Your task to perform on an android device: uninstall "Adobe Acrobat Reader" Image 0: 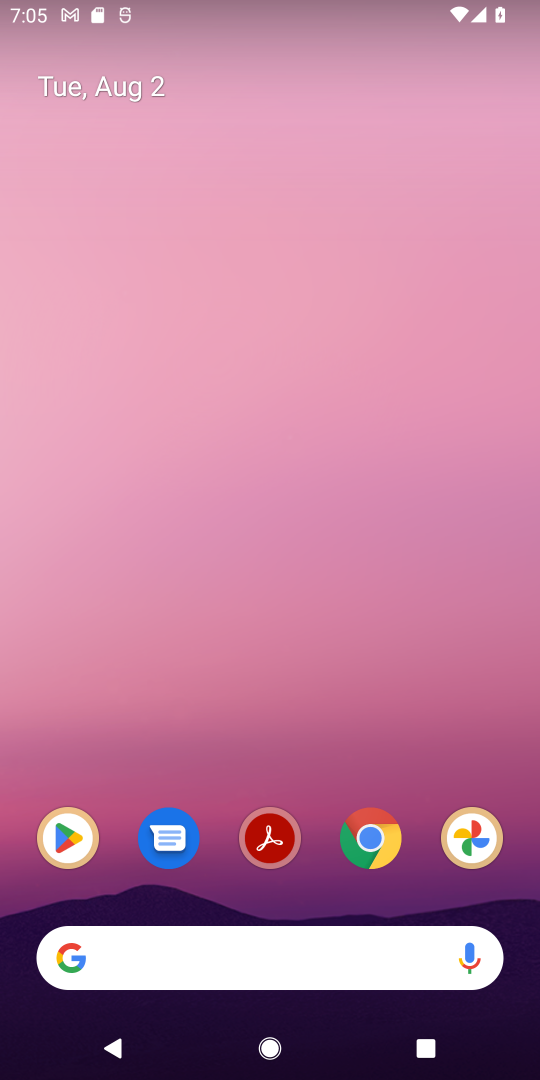
Step 0: click (60, 846)
Your task to perform on an android device: uninstall "Adobe Acrobat Reader" Image 1: 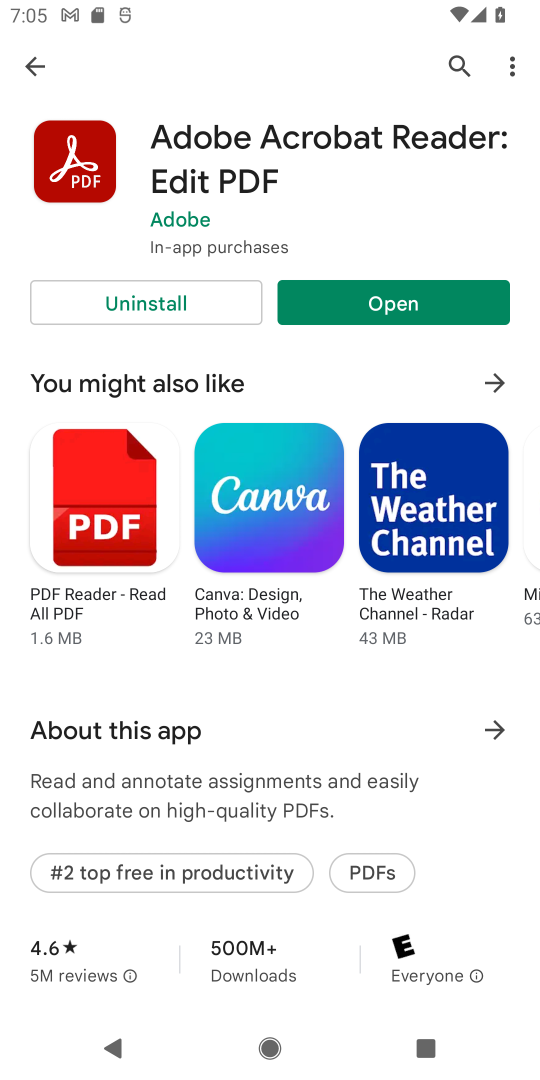
Step 1: click (459, 51)
Your task to perform on an android device: uninstall "Adobe Acrobat Reader" Image 2: 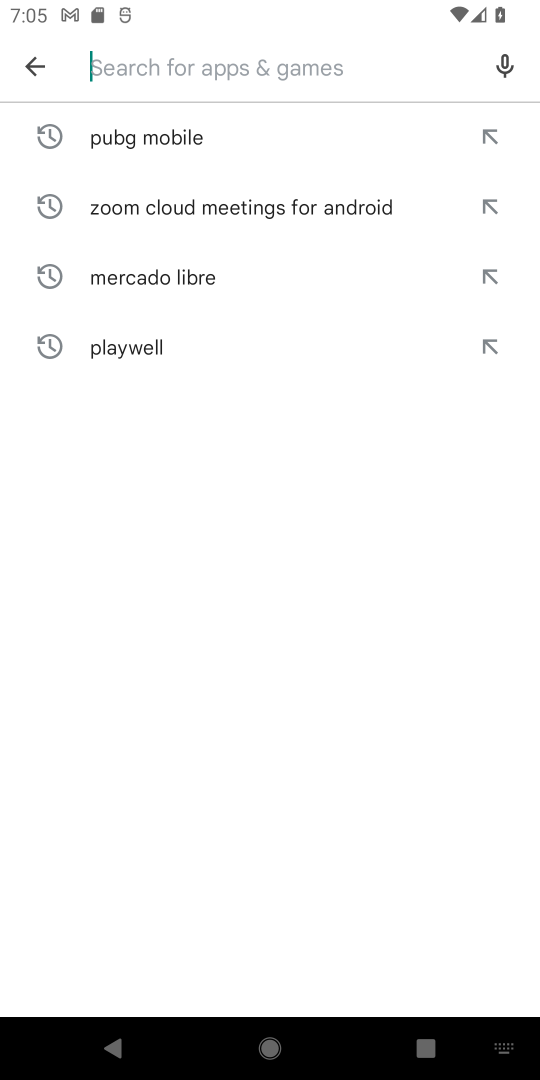
Step 2: type "adobe acrobat reader"
Your task to perform on an android device: uninstall "Adobe Acrobat Reader" Image 3: 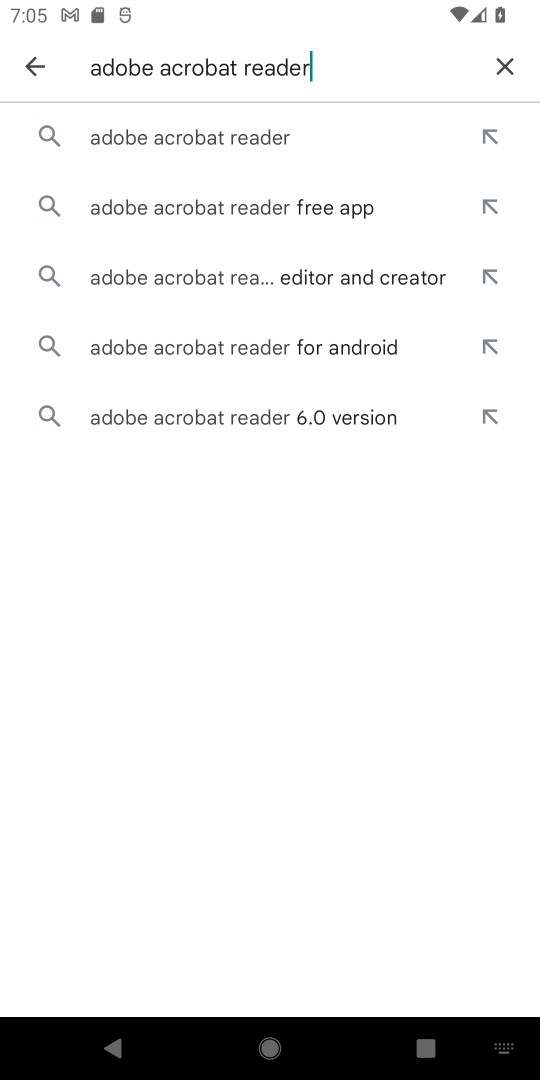
Step 3: click (334, 123)
Your task to perform on an android device: uninstall "Adobe Acrobat Reader" Image 4: 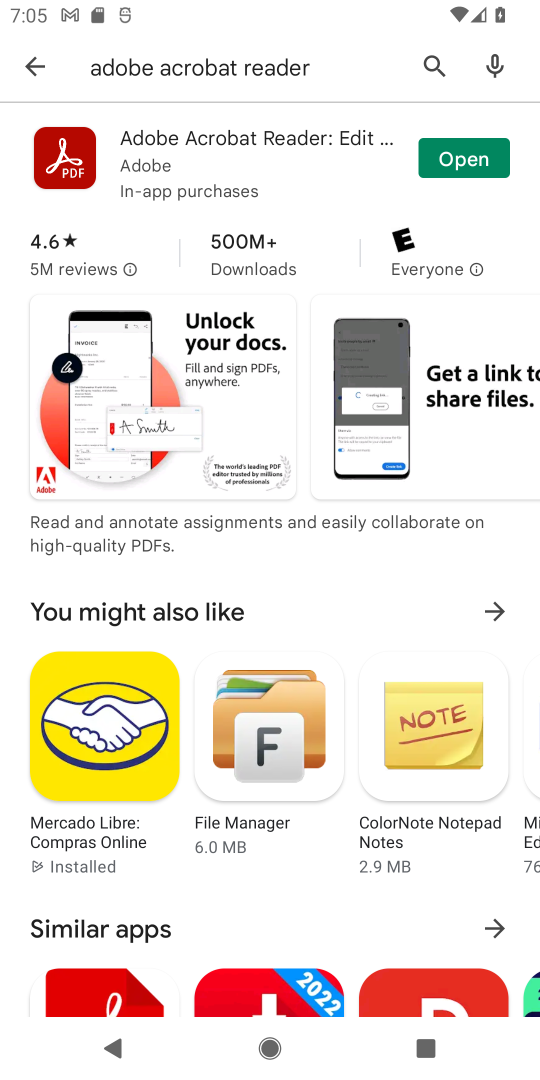
Step 4: click (171, 133)
Your task to perform on an android device: uninstall "Adobe Acrobat Reader" Image 5: 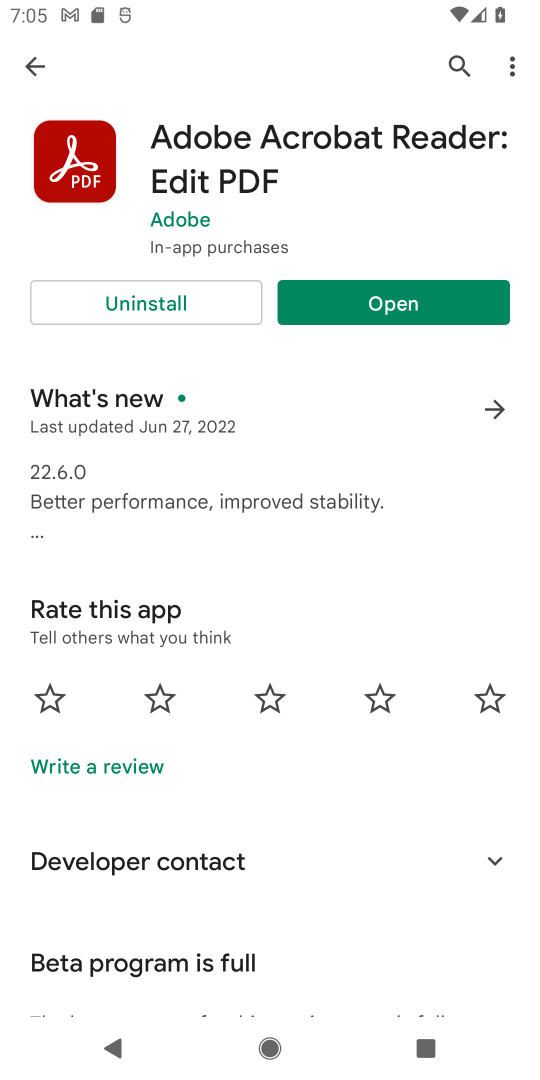
Step 5: click (190, 312)
Your task to perform on an android device: uninstall "Adobe Acrobat Reader" Image 6: 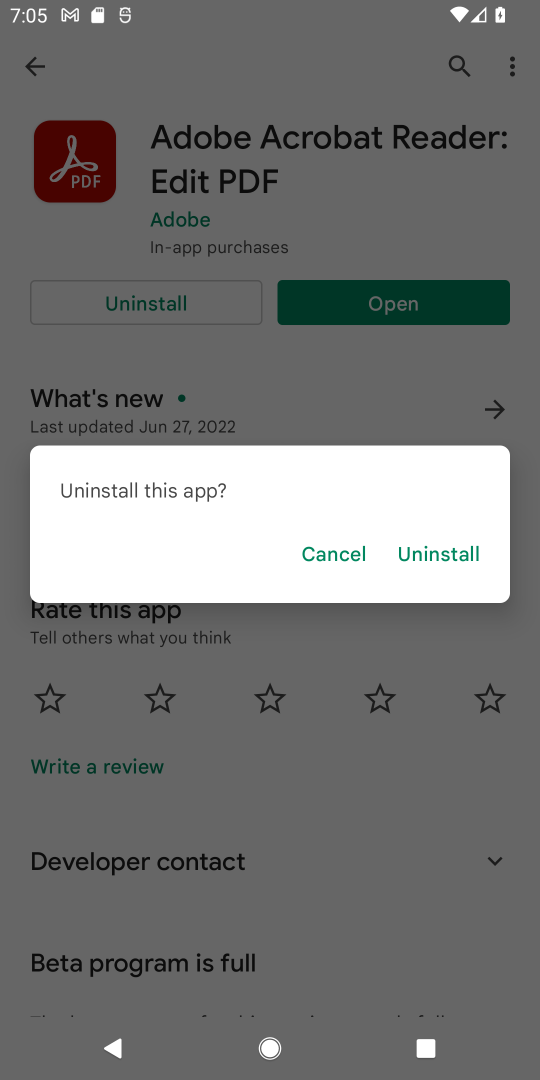
Step 6: click (431, 550)
Your task to perform on an android device: uninstall "Adobe Acrobat Reader" Image 7: 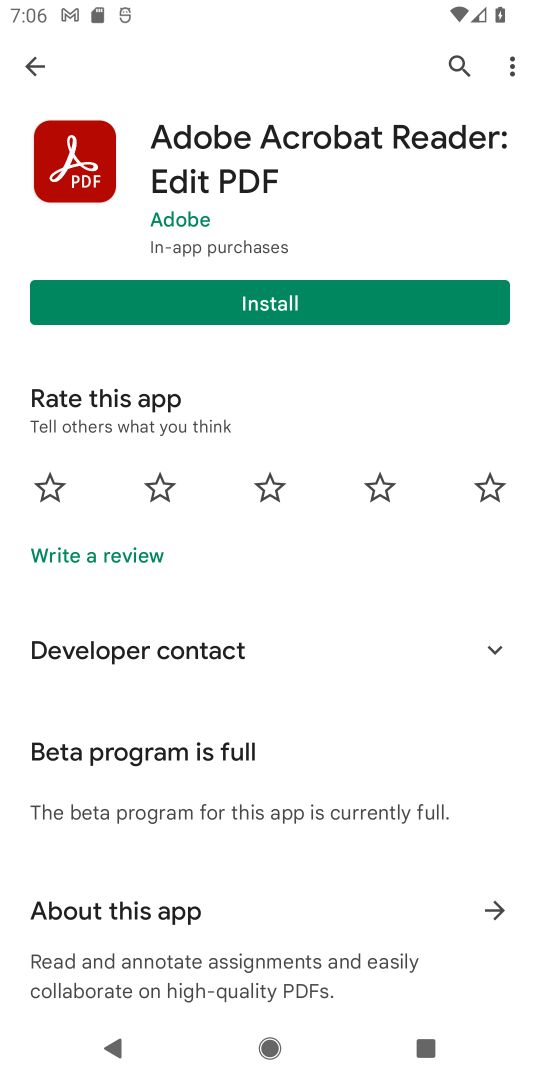
Step 7: task complete